Your task to perform on an android device: Open the map Image 0: 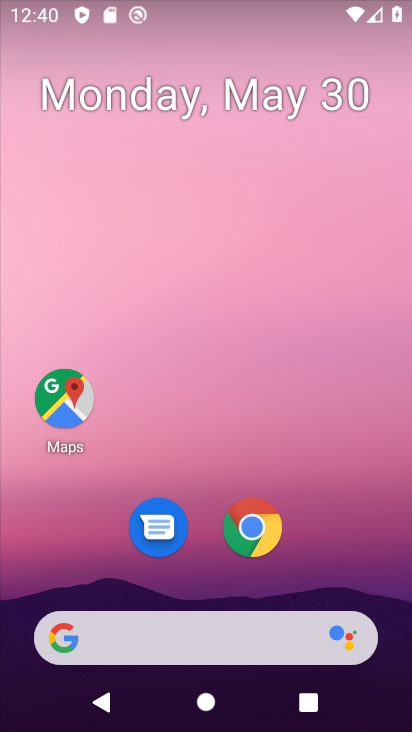
Step 0: drag from (203, 608) to (257, 414)
Your task to perform on an android device: Open the map Image 1: 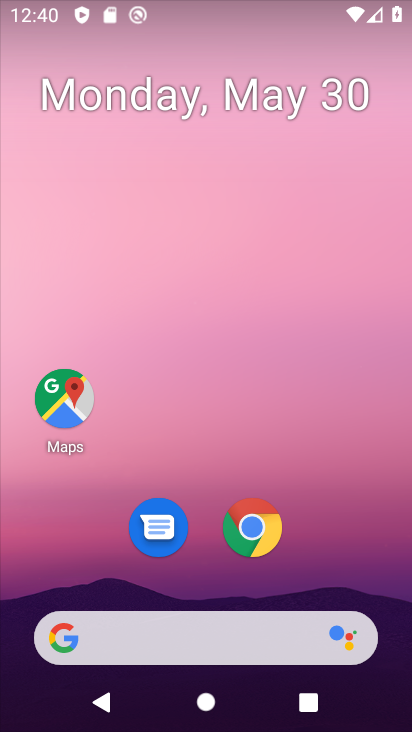
Step 1: drag from (178, 575) to (211, 291)
Your task to perform on an android device: Open the map Image 2: 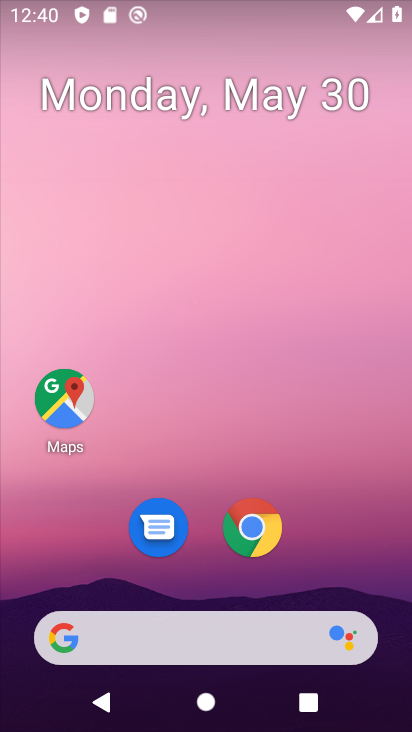
Step 2: click (64, 398)
Your task to perform on an android device: Open the map Image 3: 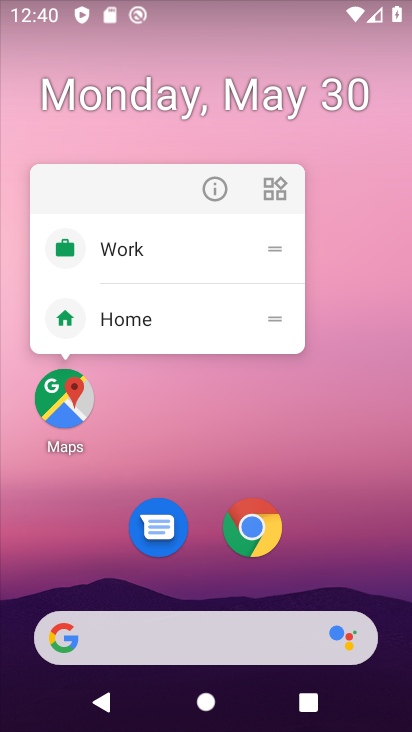
Step 3: click (206, 170)
Your task to perform on an android device: Open the map Image 4: 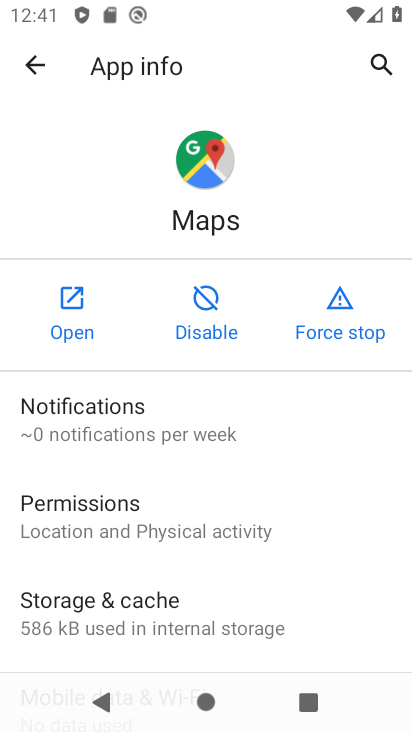
Step 4: click (65, 323)
Your task to perform on an android device: Open the map Image 5: 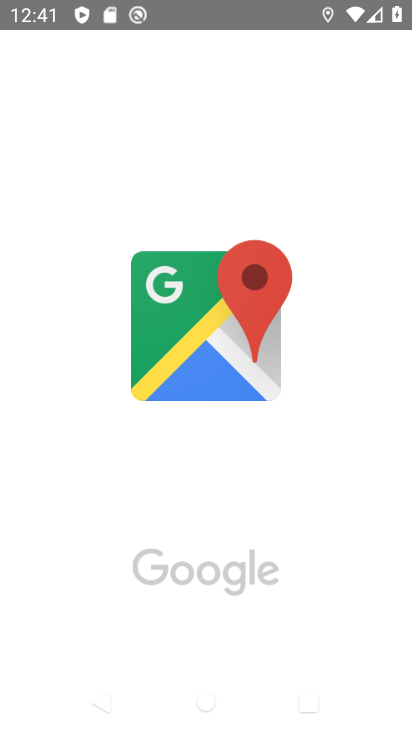
Step 5: task complete